Your task to perform on an android device: Show me the alarms in the clock app Image 0: 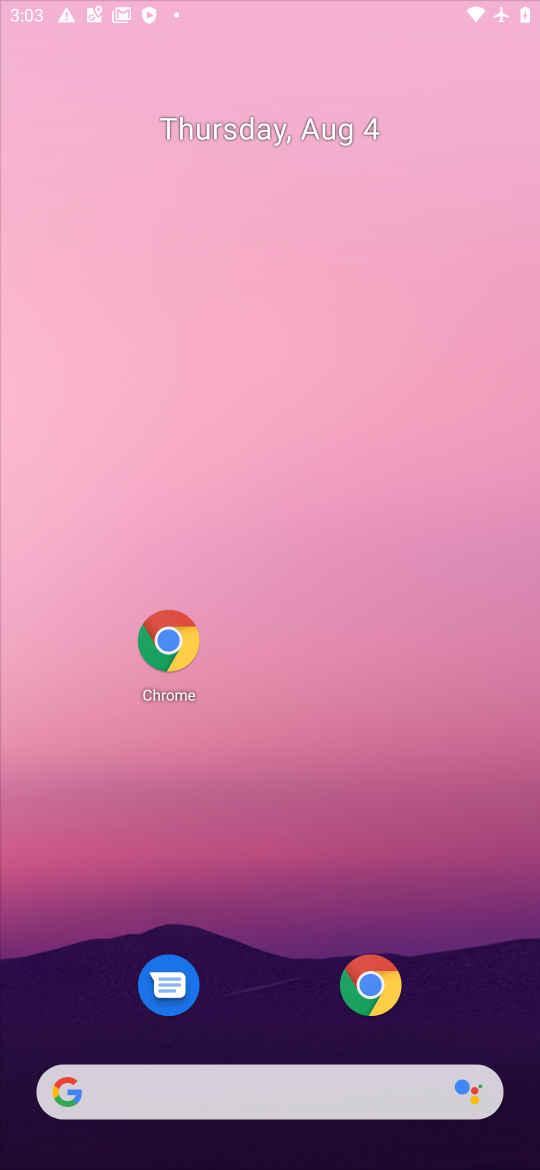
Step 0: press back button
Your task to perform on an android device: Show me the alarms in the clock app Image 1: 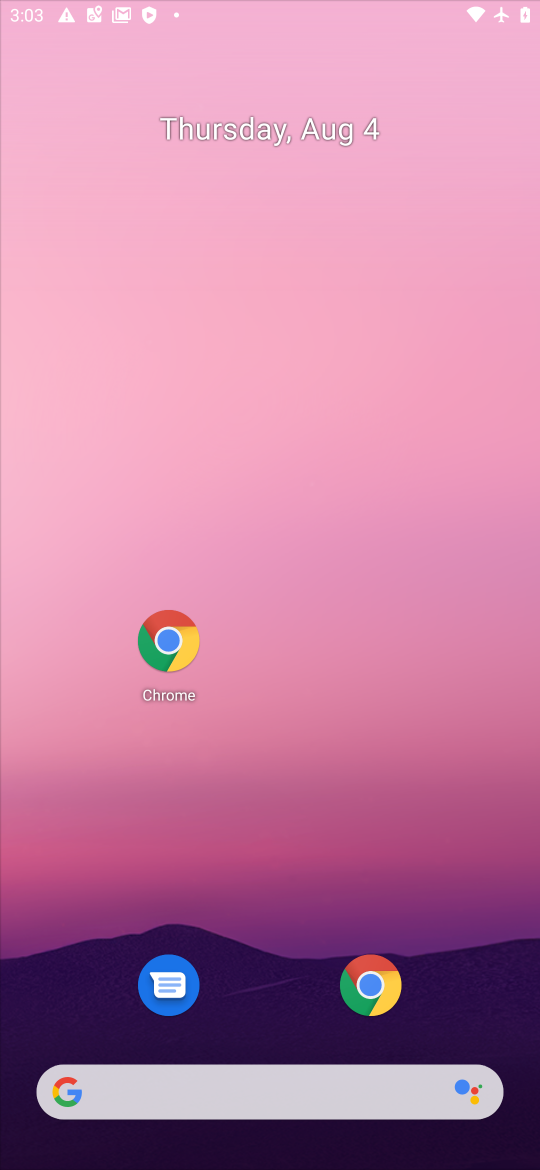
Step 1: click (283, 202)
Your task to perform on an android device: Show me the alarms in the clock app Image 2: 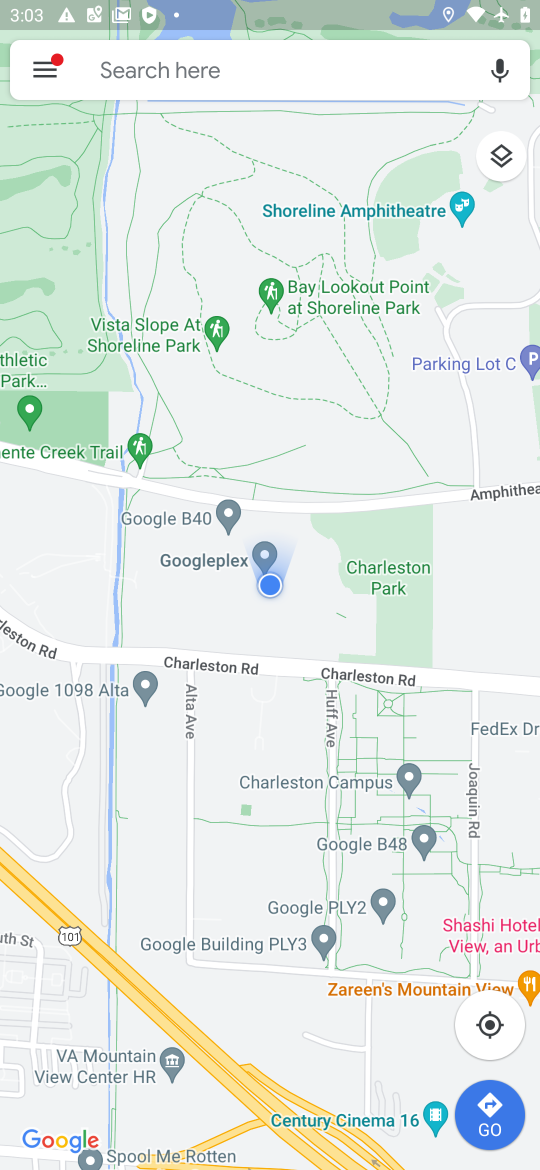
Step 2: drag from (295, 765) to (177, 209)
Your task to perform on an android device: Show me the alarms in the clock app Image 3: 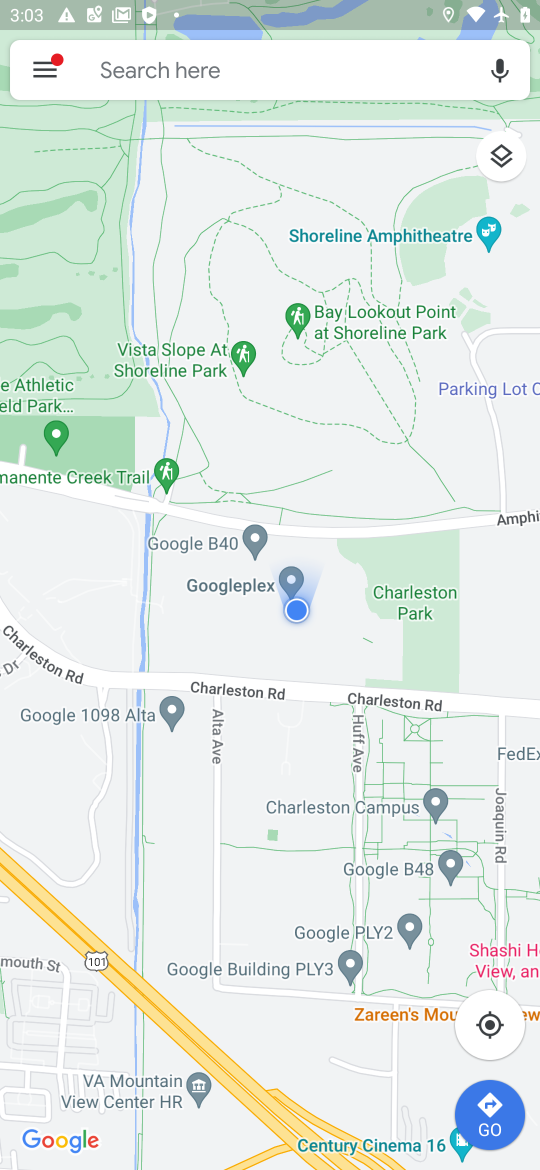
Step 3: drag from (267, 885) to (153, 318)
Your task to perform on an android device: Show me the alarms in the clock app Image 4: 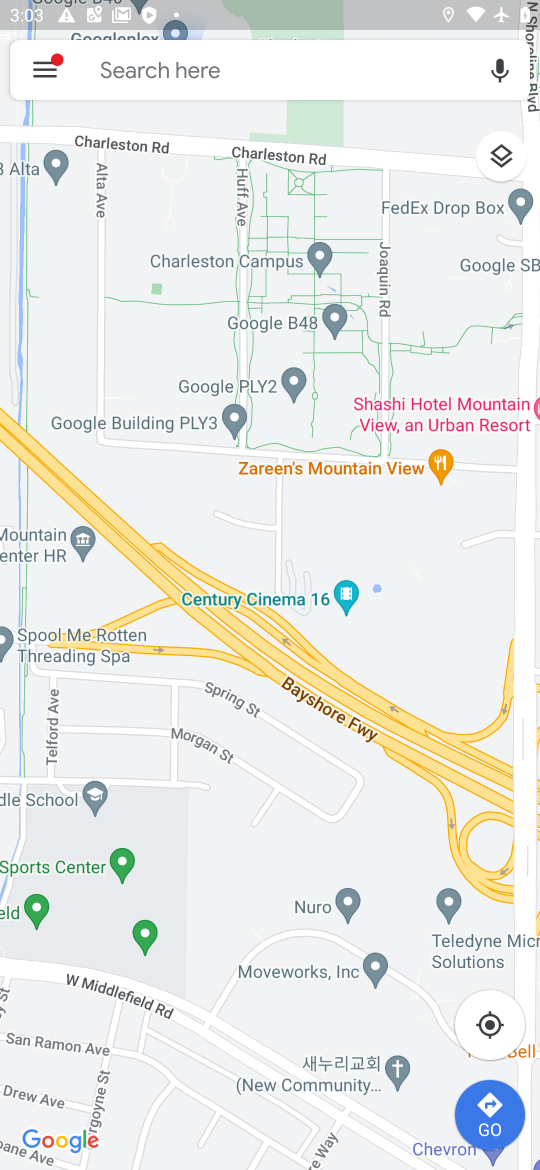
Step 4: drag from (303, 796) to (242, 257)
Your task to perform on an android device: Show me the alarms in the clock app Image 5: 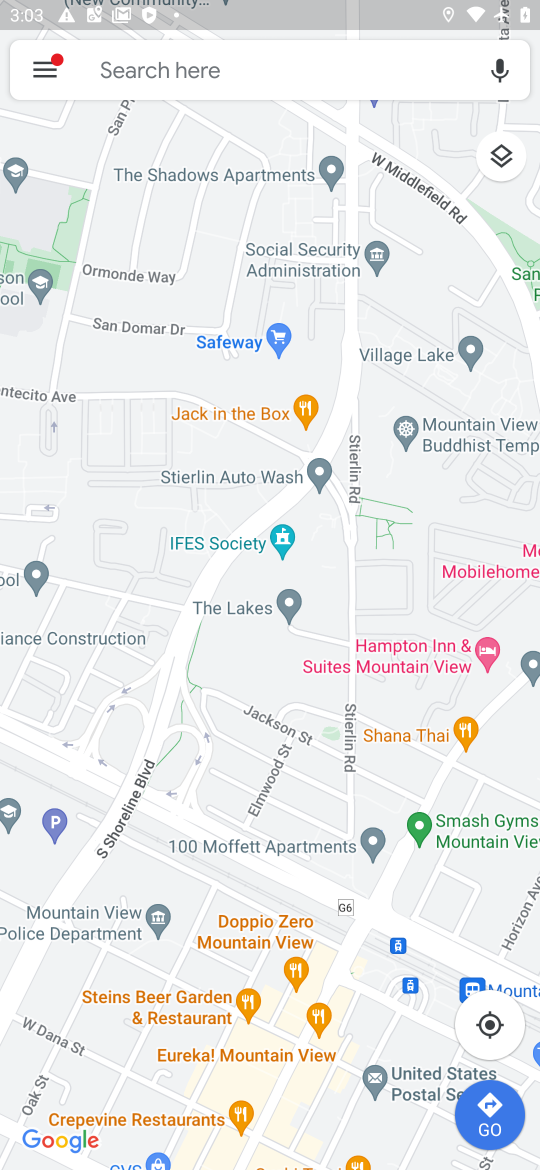
Step 5: press back button
Your task to perform on an android device: Show me the alarms in the clock app Image 6: 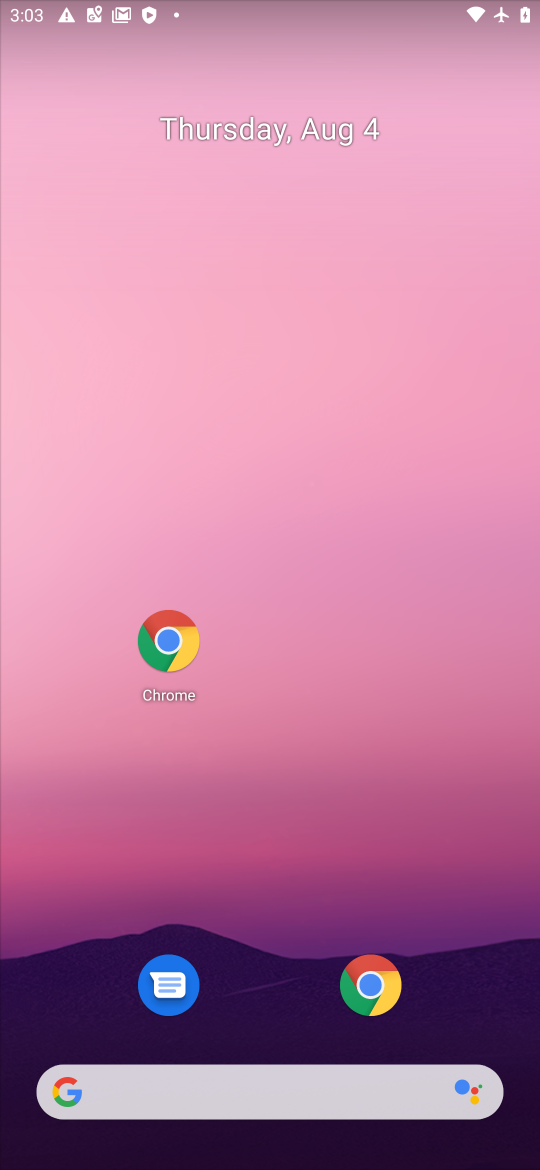
Step 6: drag from (164, 795) to (54, 240)
Your task to perform on an android device: Show me the alarms in the clock app Image 7: 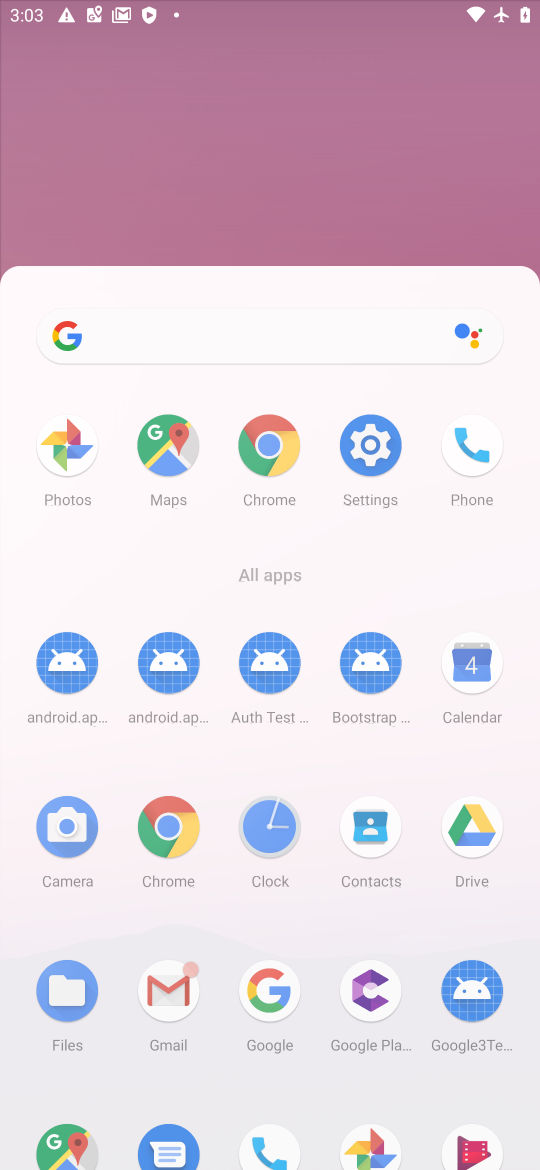
Step 7: drag from (232, 699) to (195, 311)
Your task to perform on an android device: Show me the alarms in the clock app Image 8: 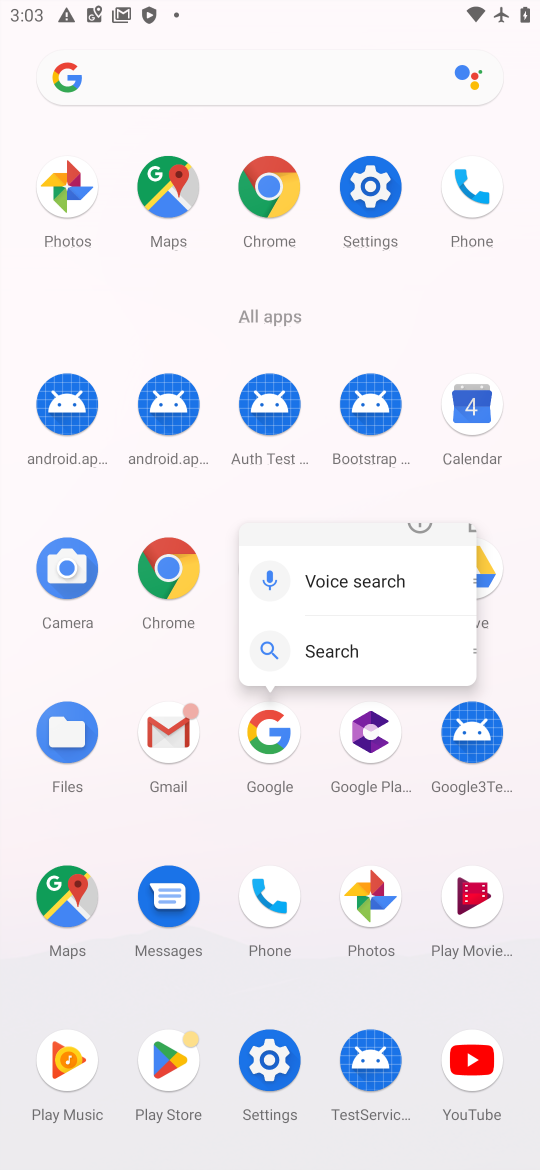
Step 8: click (162, 242)
Your task to perform on an android device: Show me the alarms in the clock app Image 9: 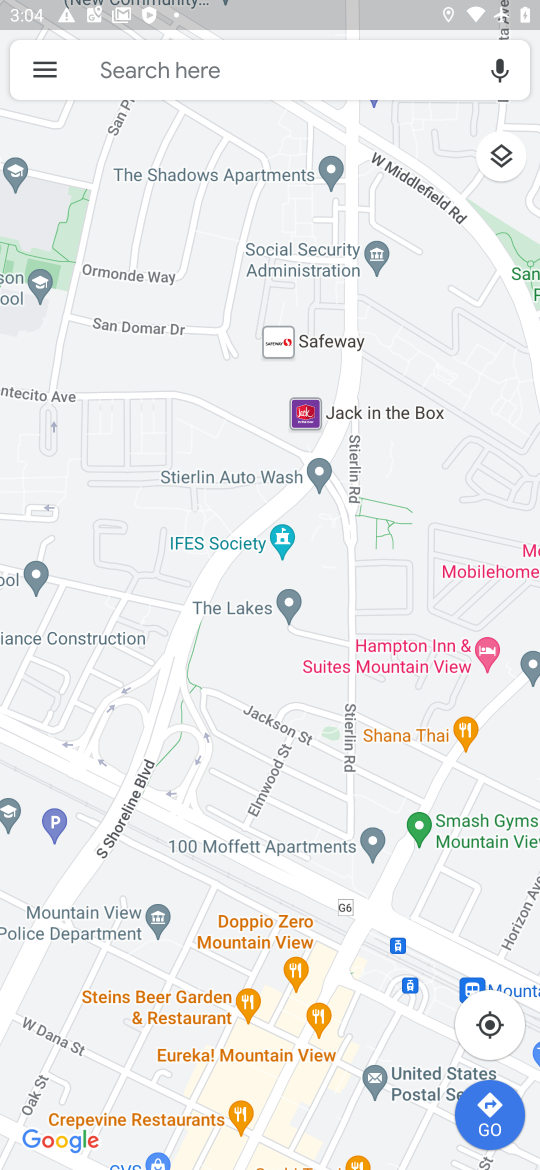
Step 9: press back button
Your task to perform on an android device: Show me the alarms in the clock app Image 10: 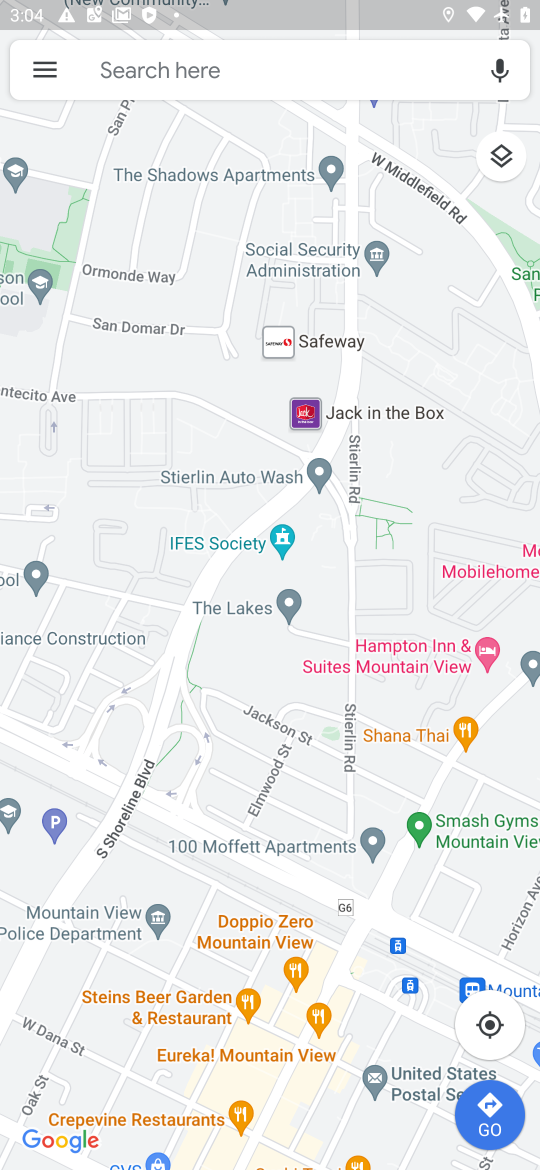
Step 10: press back button
Your task to perform on an android device: Show me the alarms in the clock app Image 11: 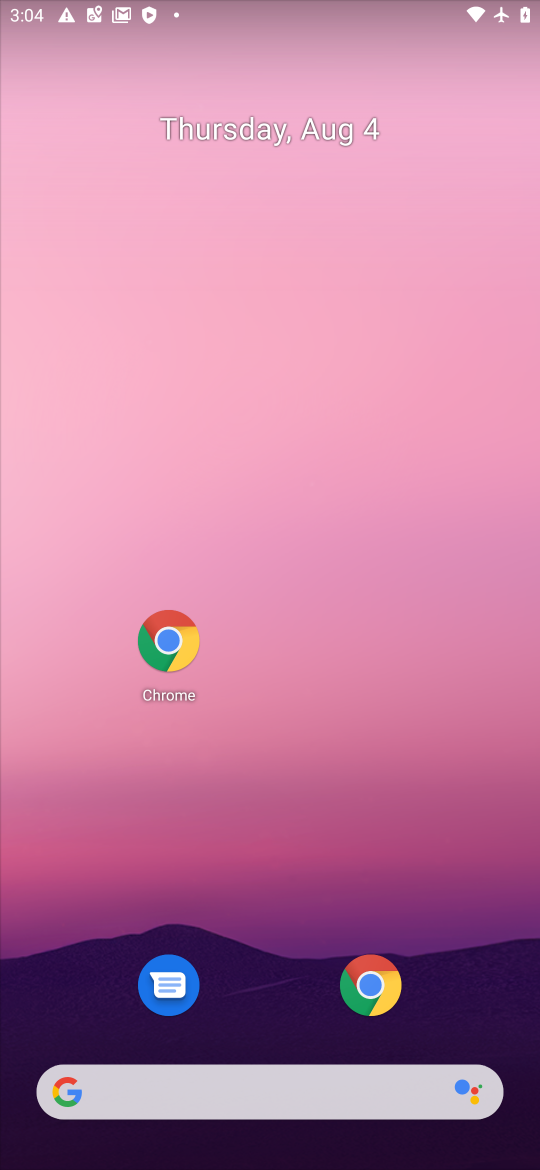
Step 11: press back button
Your task to perform on an android device: Show me the alarms in the clock app Image 12: 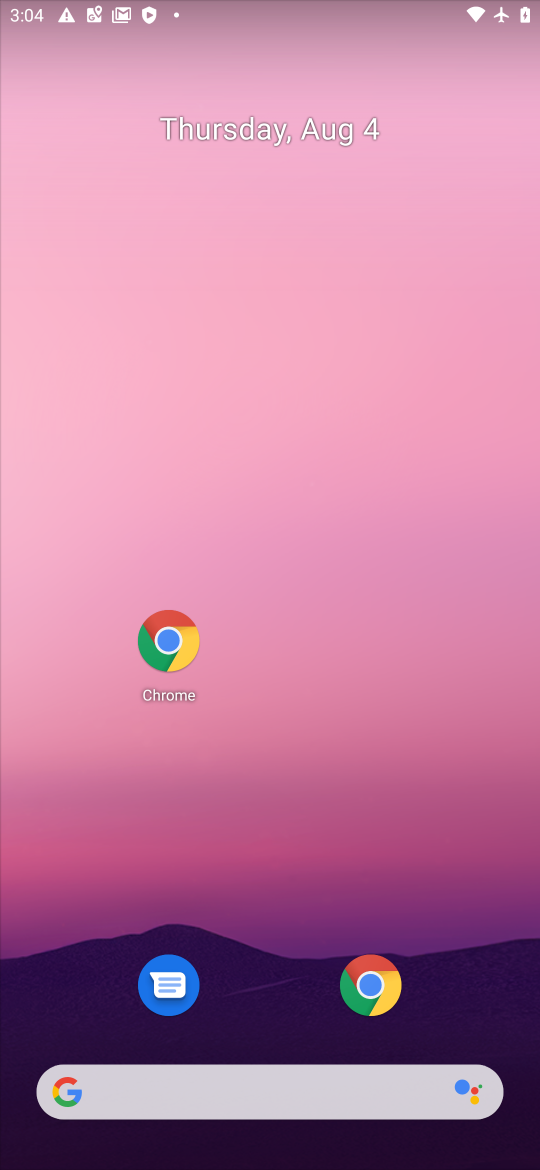
Step 12: press home button
Your task to perform on an android device: Show me the alarms in the clock app Image 13: 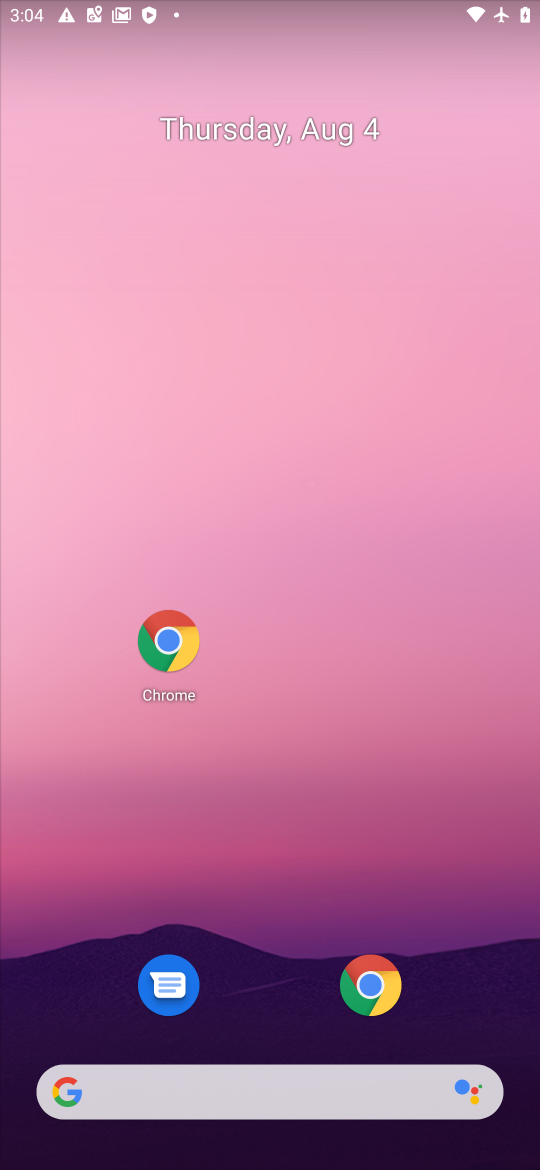
Step 13: press home button
Your task to perform on an android device: Show me the alarms in the clock app Image 14: 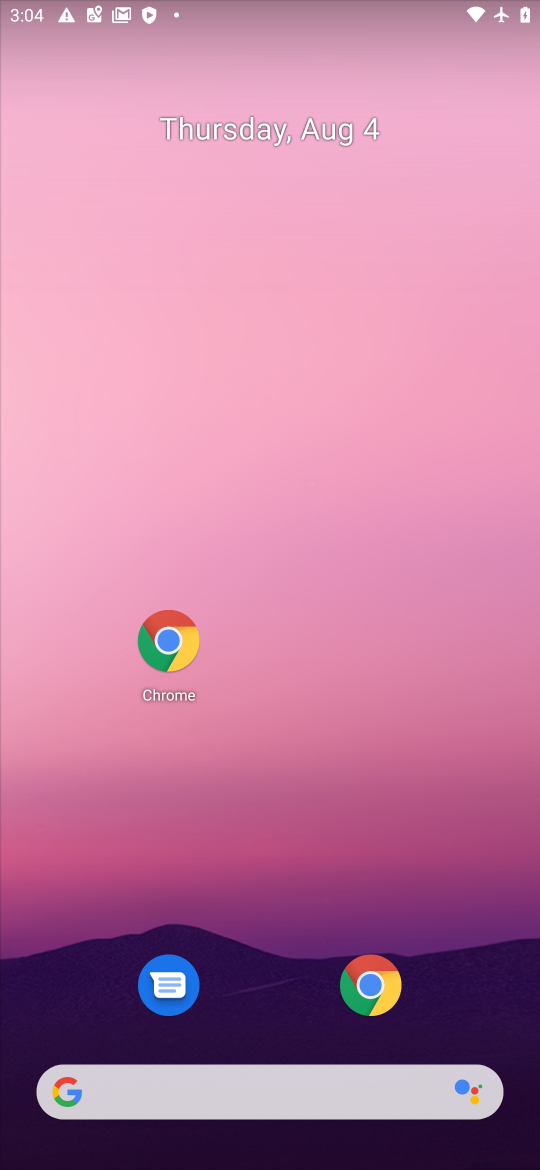
Step 14: click (58, 67)
Your task to perform on an android device: Show me the alarms in the clock app Image 15: 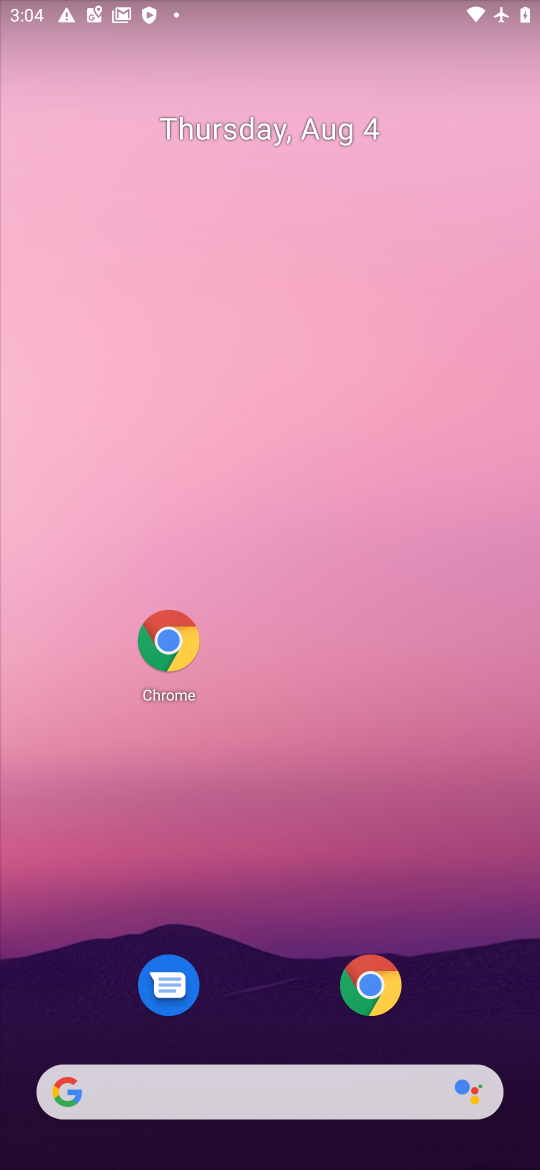
Step 15: drag from (170, 177) to (195, 82)
Your task to perform on an android device: Show me the alarms in the clock app Image 16: 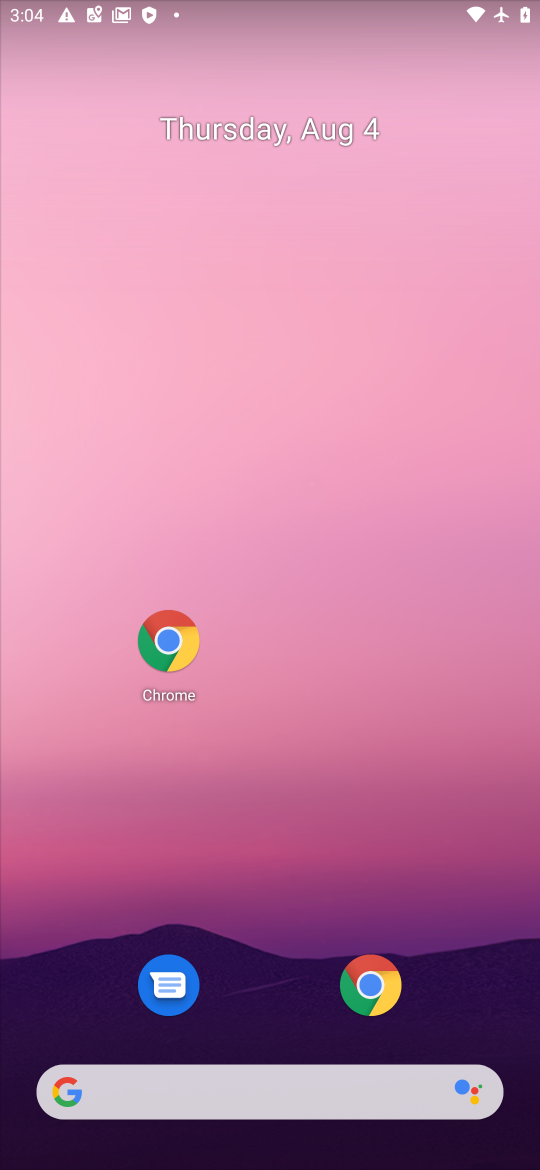
Step 16: drag from (342, 549) to (236, 151)
Your task to perform on an android device: Show me the alarms in the clock app Image 17: 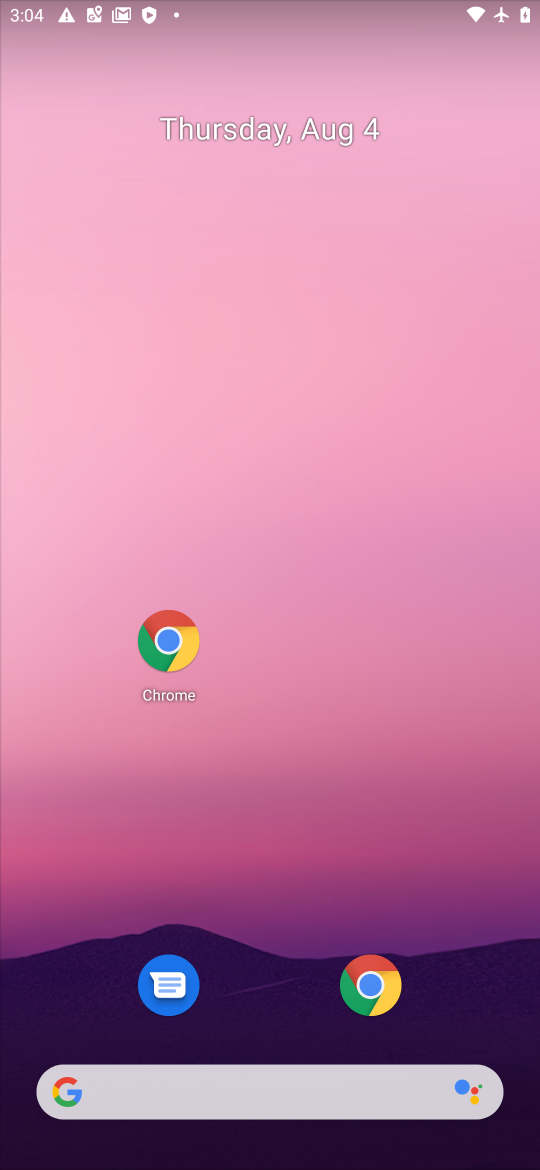
Step 17: drag from (67, 175) to (16, 0)
Your task to perform on an android device: Show me the alarms in the clock app Image 18: 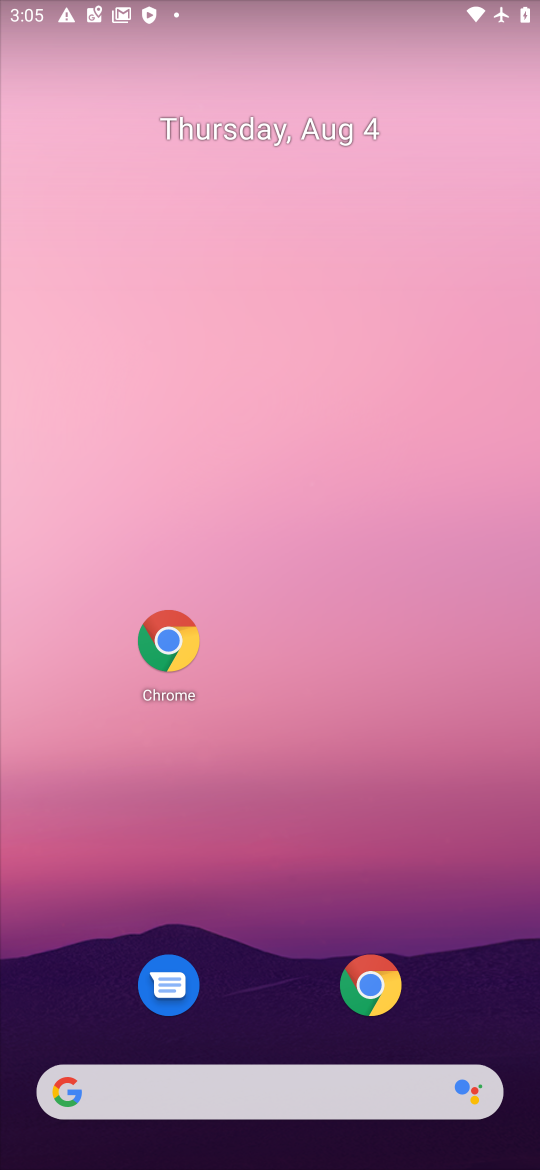
Step 18: drag from (267, 941) to (85, 218)
Your task to perform on an android device: Show me the alarms in the clock app Image 19: 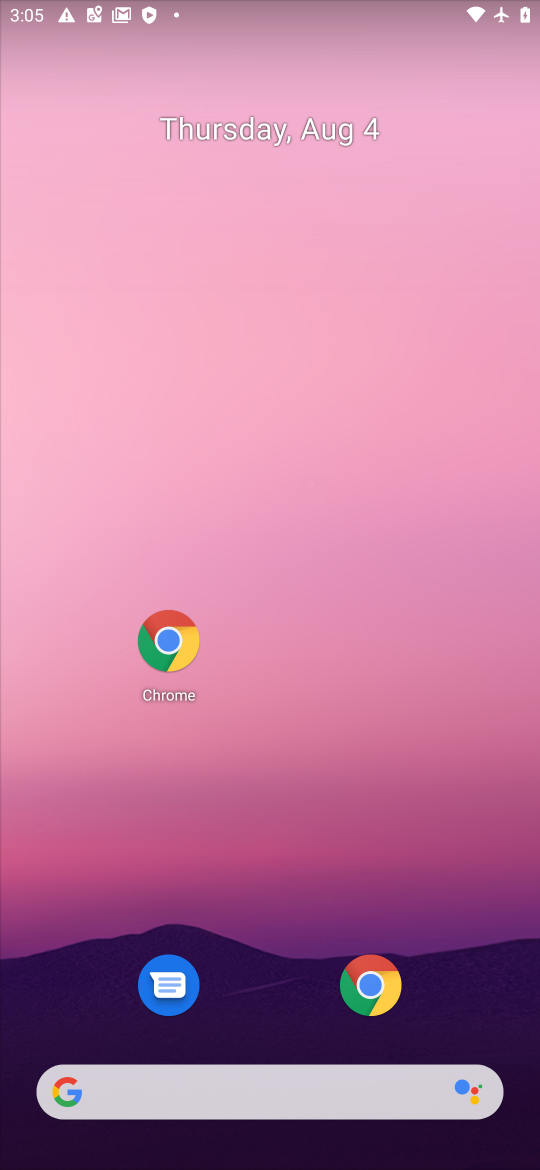
Step 19: drag from (305, 827) to (163, 225)
Your task to perform on an android device: Show me the alarms in the clock app Image 20: 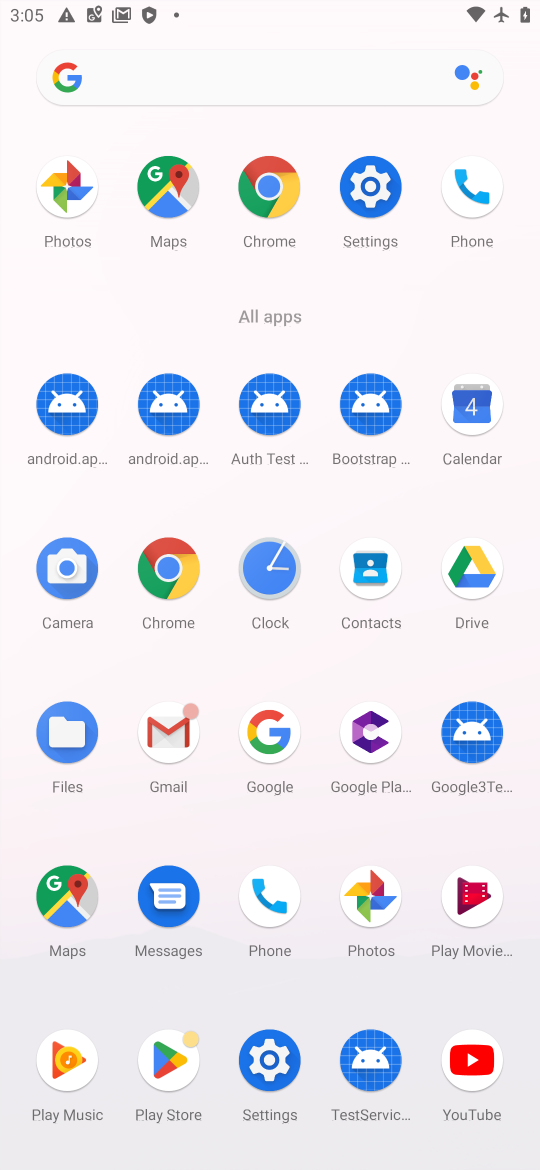
Step 20: click (274, 576)
Your task to perform on an android device: Show me the alarms in the clock app Image 21: 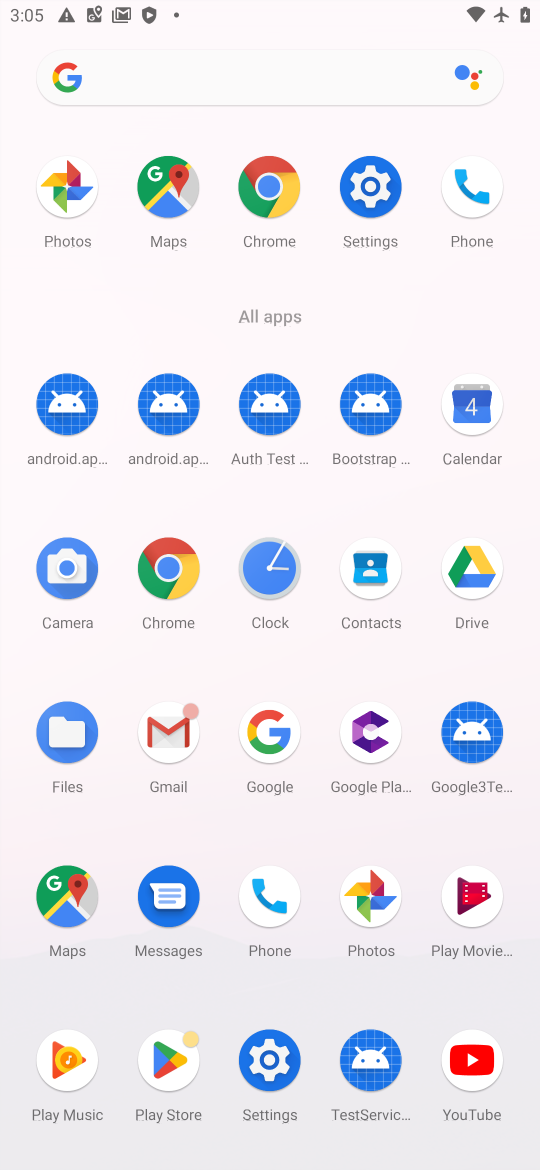
Step 21: click (275, 577)
Your task to perform on an android device: Show me the alarms in the clock app Image 22: 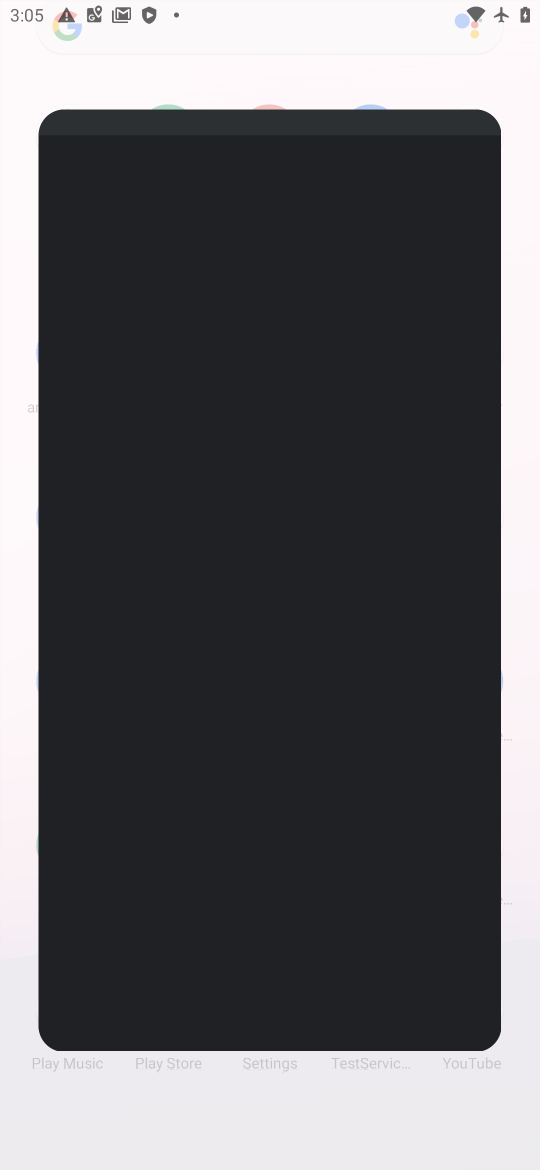
Step 22: click (278, 586)
Your task to perform on an android device: Show me the alarms in the clock app Image 23: 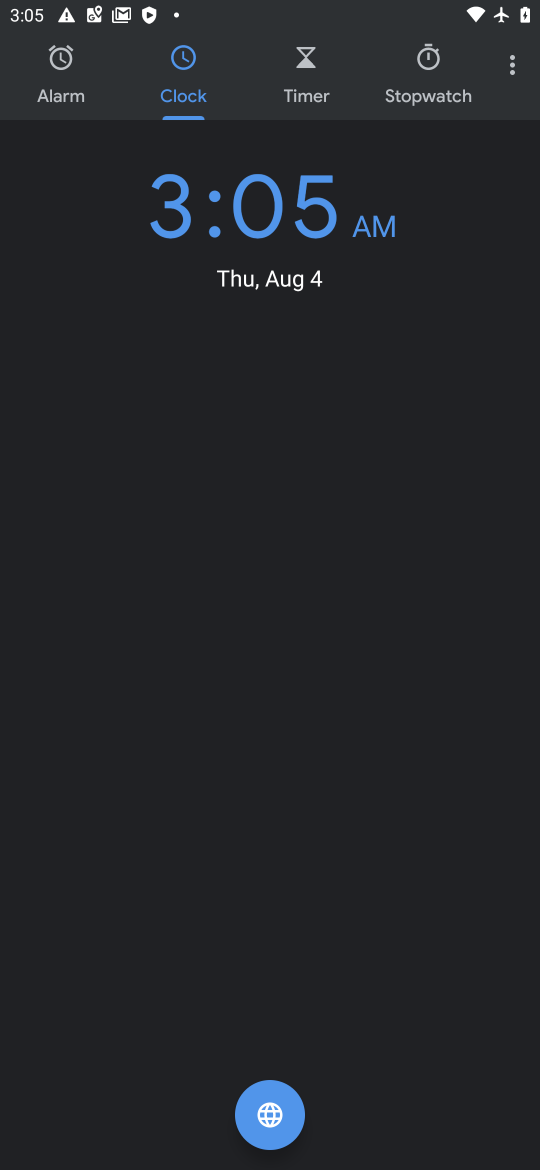
Step 23: click (284, 585)
Your task to perform on an android device: Show me the alarms in the clock app Image 24: 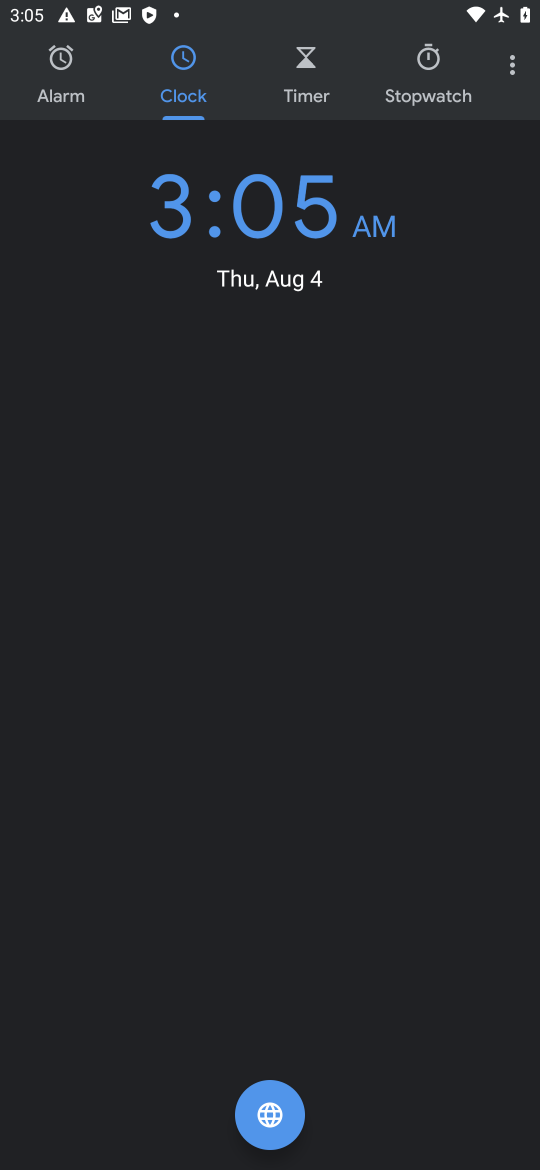
Step 24: click (56, 74)
Your task to perform on an android device: Show me the alarms in the clock app Image 25: 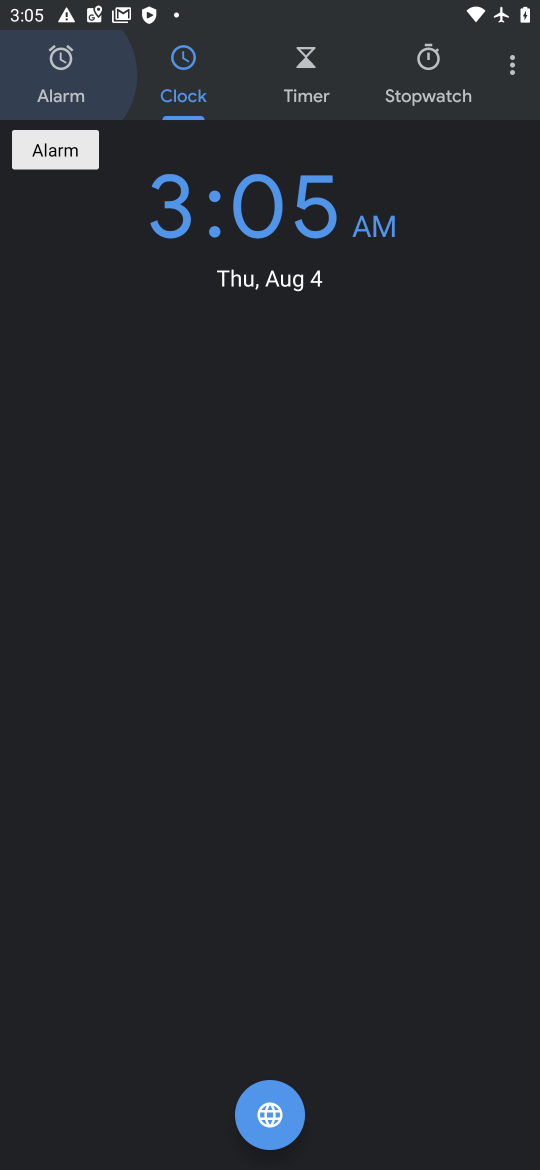
Step 25: click (57, 73)
Your task to perform on an android device: Show me the alarms in the clock app Image 26: 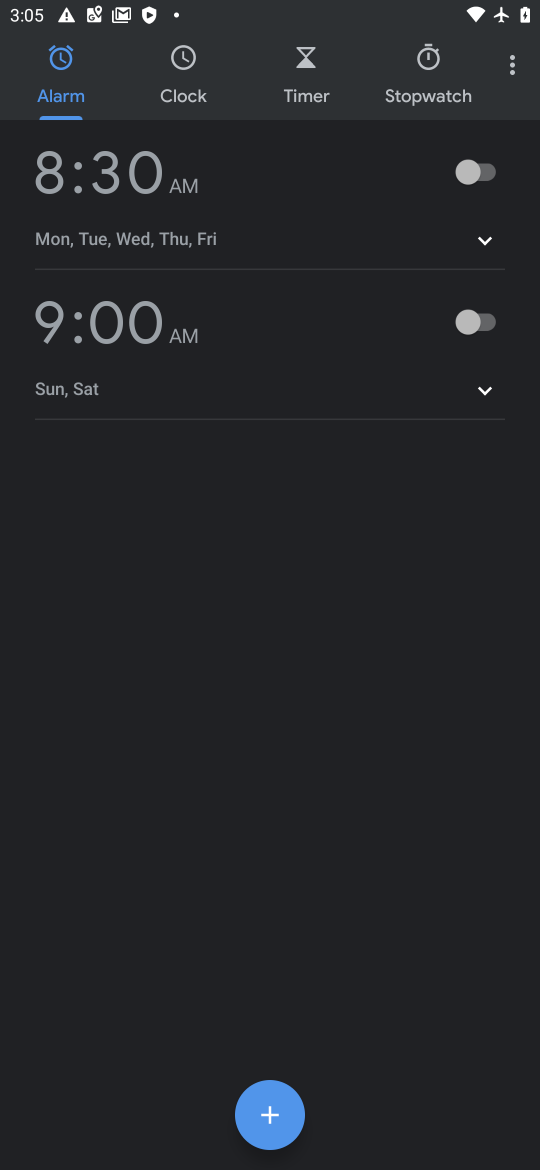
Step 26: click (484, 116)
Your task to perform on an android device: Show me the alarms in the clock app Image 27: 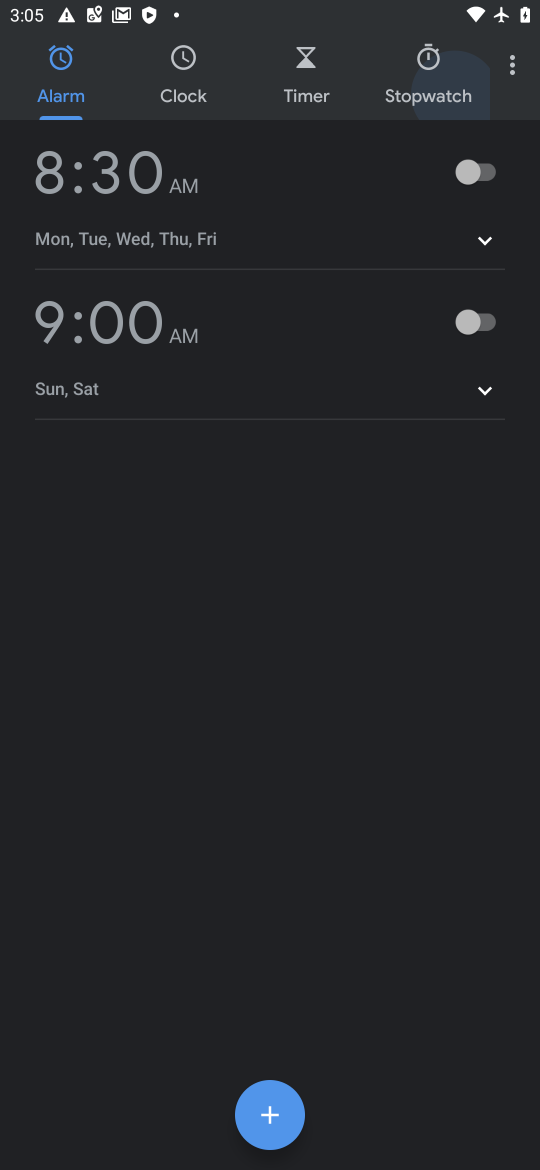
Step 27: click (457, 148)
Your task to perform on an android device: Show me the alarms in the clock app Image 28: 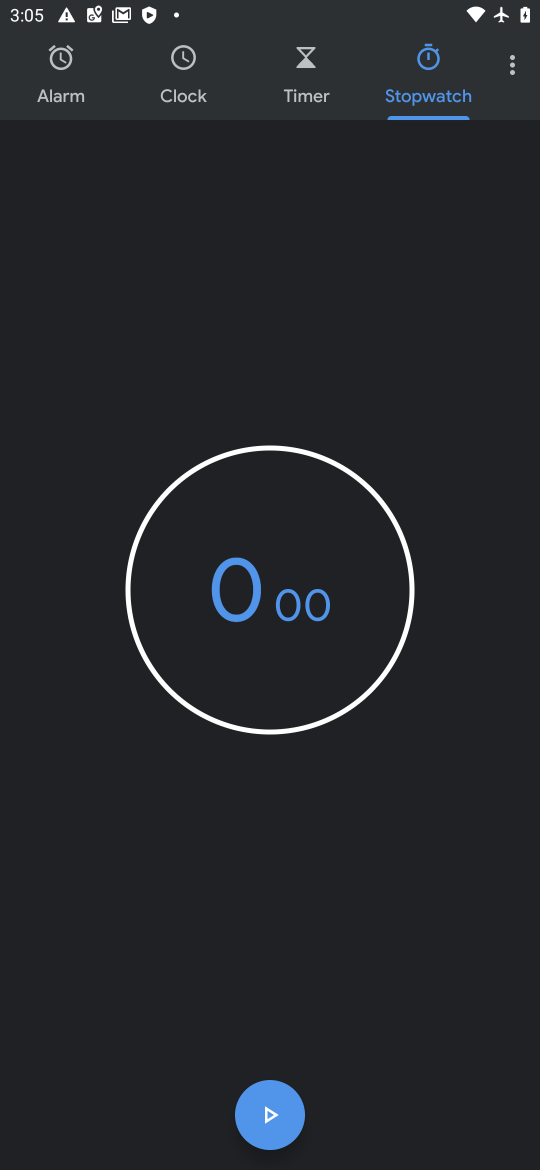
Step 28: task complete